Your task to perform on an android device: open app "Facebook Messenger" (install if not already installed) Image 0: 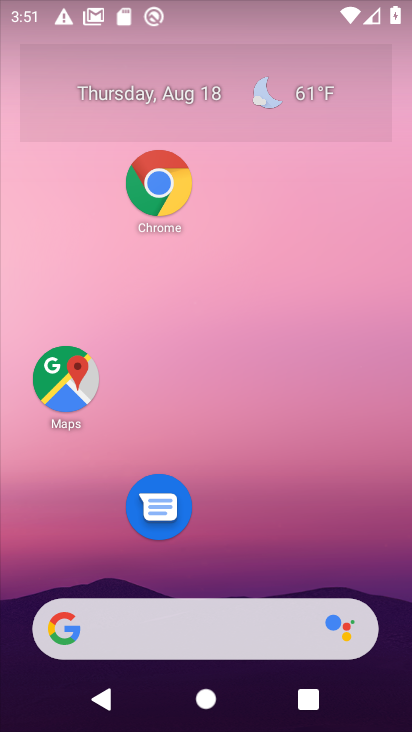
Step 0: drag from (262, 559) to (314, 138)
Your task to perform on an android device: open app "Facebook Messenger" (install if not already installed) Image 1: 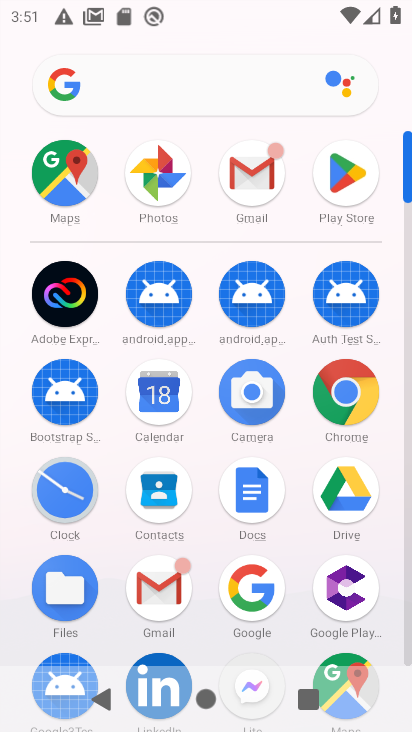
Step 1: click (350, 171)
Your task to perform on an android device: open app "Facebook Messenger" (install if not already installed) Image 2: 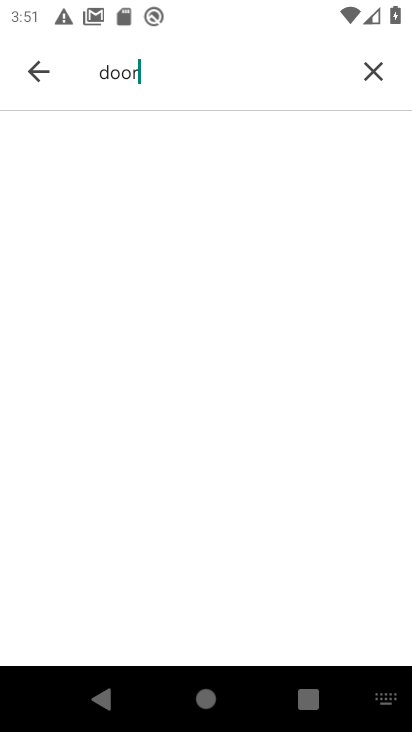
Step 2: click (389, 69)
Your task to perform on an android device: open app "Facebook Messenger" (install if not already installed) Image 3: 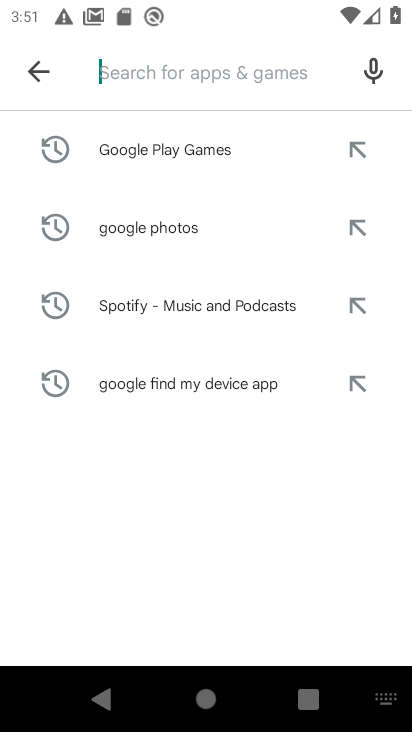
Step 3: click (177, 77)
Your task to perform on an android device: open app "Facebook Messenger" (install if not already installed) Image 4: 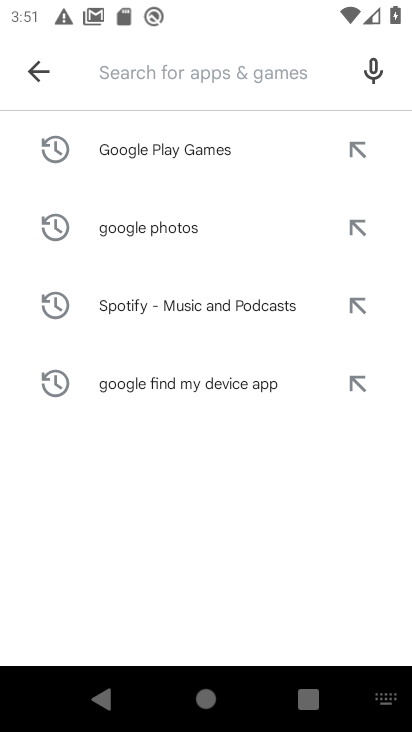
Step 4: type "Facebook Messenger"
Your task to perform on an android device: open app "Facebook Messenger" (install if not already installed) Image 5: 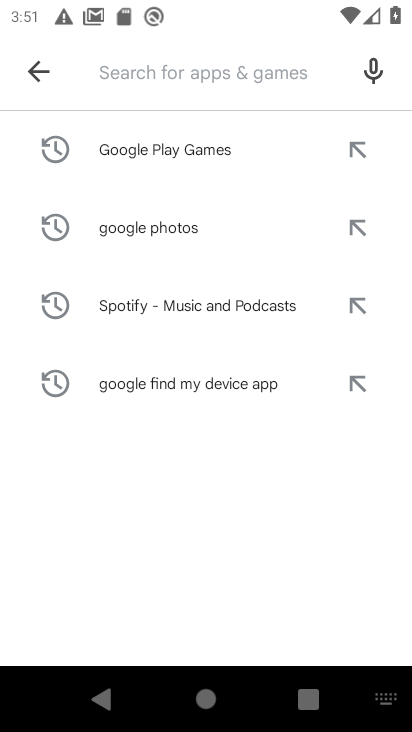
Step 5: click (226, 534)
Your task to perform on an android device: open app "Facebook Messenger" (install if not already installed) Image 6: 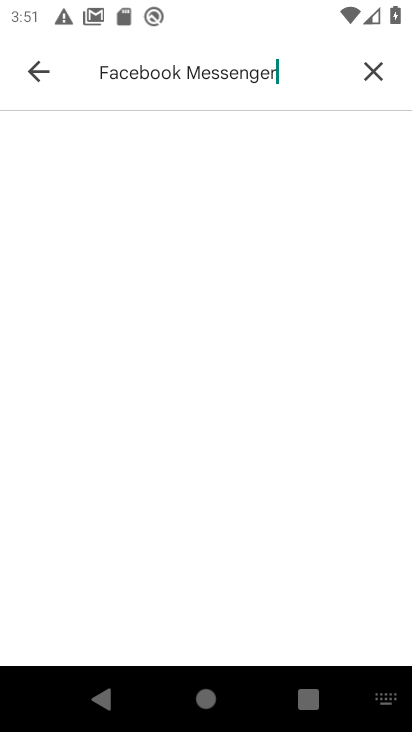
Step 6: task complete